Your task to perform on an android device: Open the map Image 0: 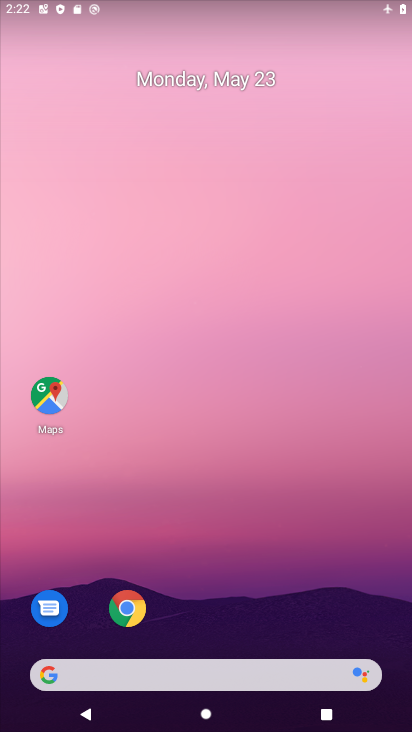
Step 0: drag from (200, 647) to (125, 303)
Your task to perform on an android device: Open the map Image 1: 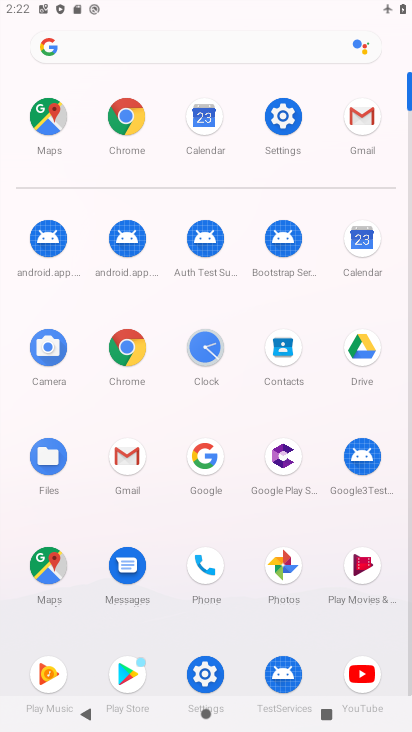
Step 1: click (126, 343)
Your task to perform on an android device: Open the map Image 2: 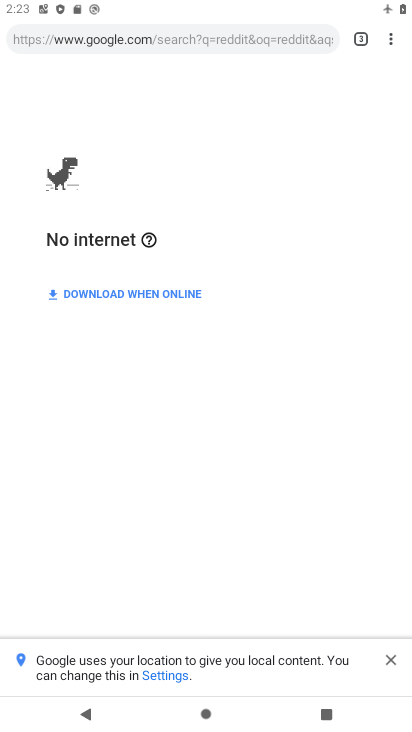
Step 2: press home button
Your task to perform on an android device: Open the map Image 3: 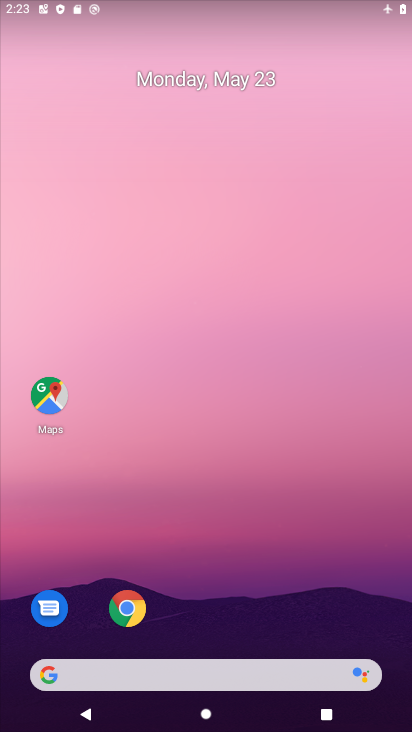
Step 3: drag from (224, 644) to (181, 27)
Your task to perform on an android device: Open the map Image 4: 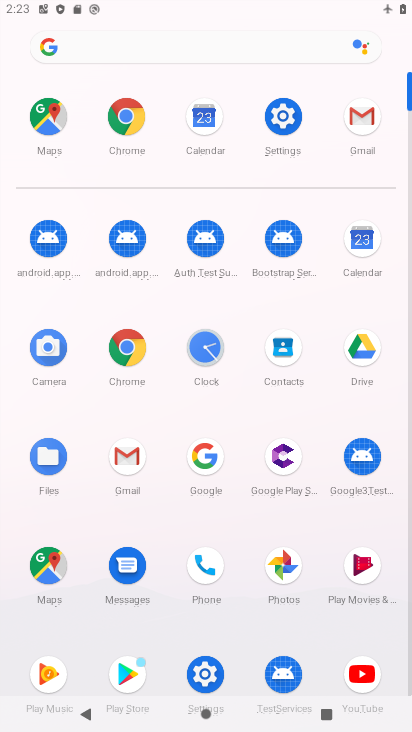
Step 4: click (32, 574)
Your task to perform on an android device: Open the map Image 5: 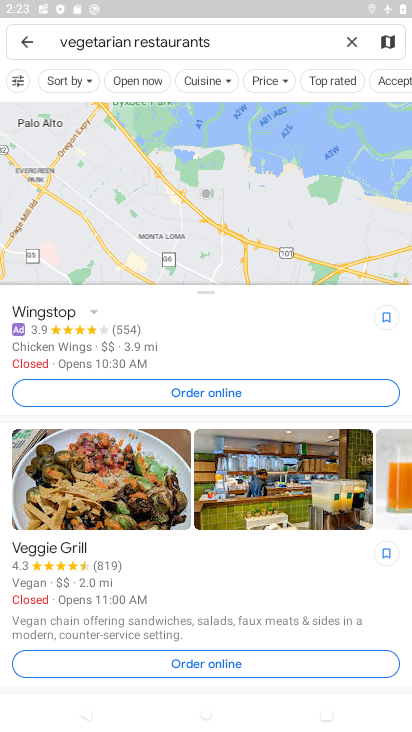
Step 5: task complete